Your task to perform on an android device: Go to sound settings Image 0: 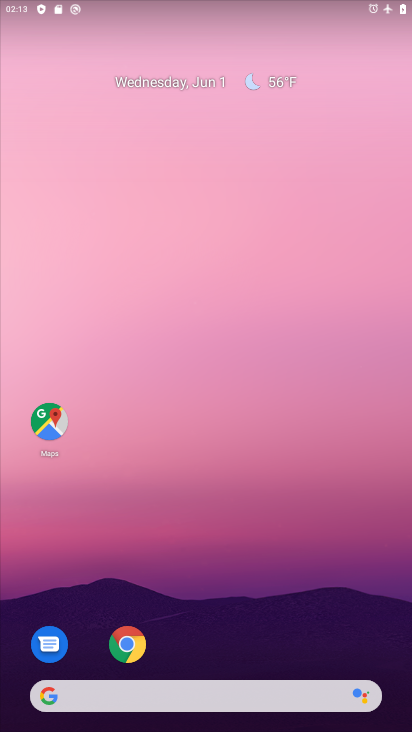
Step 0: drag from (218, 549) to (159, 229)
Your task to perform on an android device: Go to sound settings Image 1: 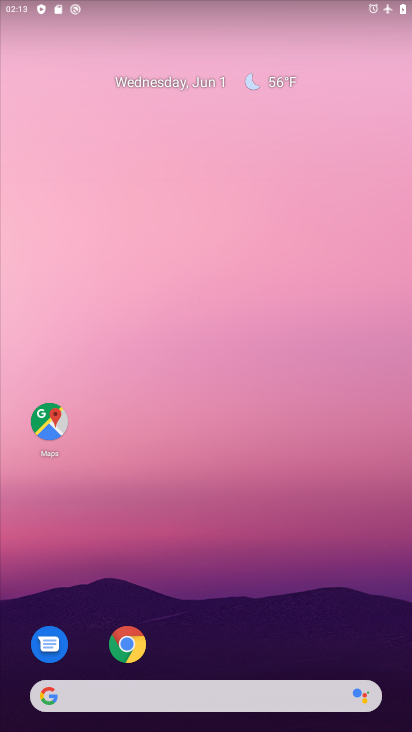
Step 1: drag from (213, 678) to (144, 259)
Your task to perform on an android device: Go to sound settings Image 2: 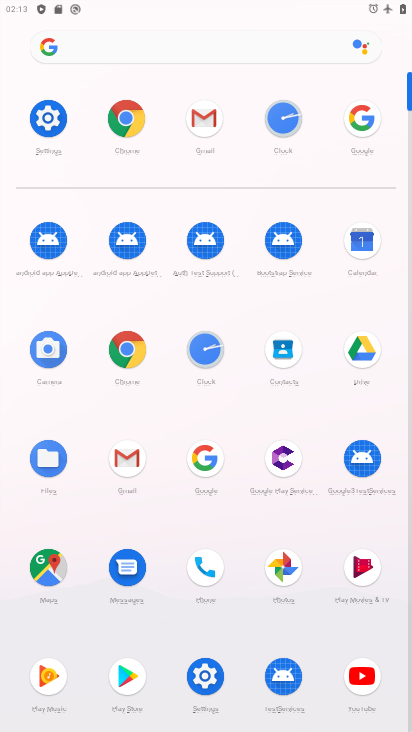
Step 2: click (47, 114)
Your task to perform on an android device: Go to sound settings Image 3: 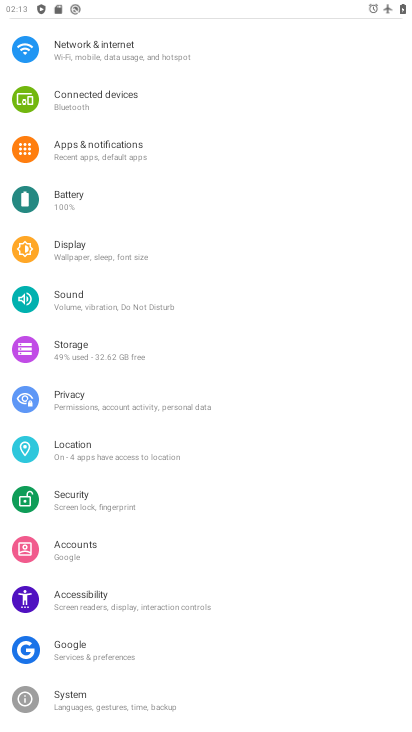
Step 3: click (93, 301)
Your task to perform on an android device: Go to sound settings Image 4: 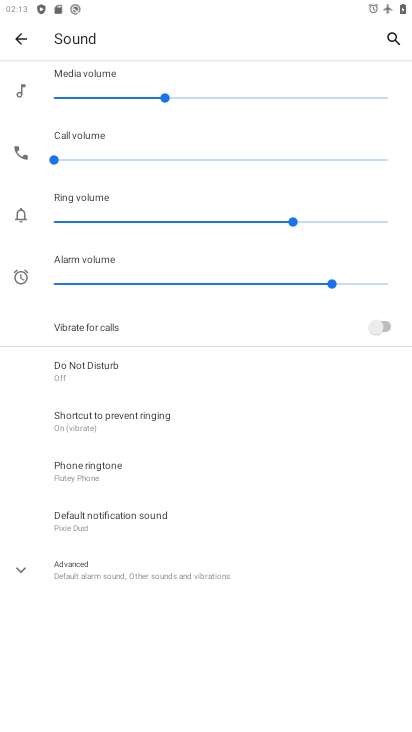
Step 4: click (151, 568)
Your task to perform on an android device: Go to sound settings Image 5: 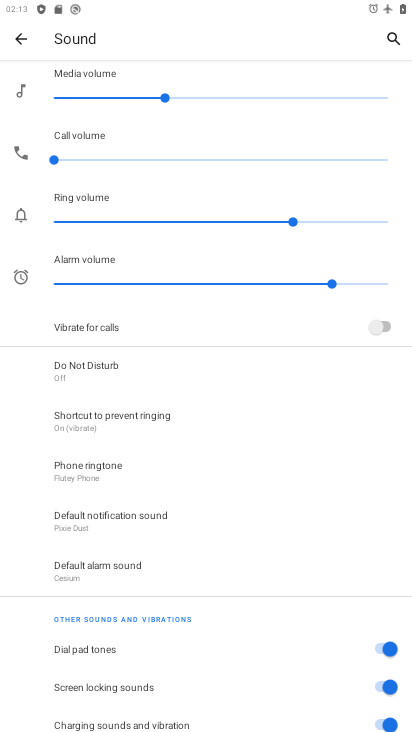
Step 5: task complete